Your task to perform on an android device: toggle notifications settings in the gmail app Image 0: 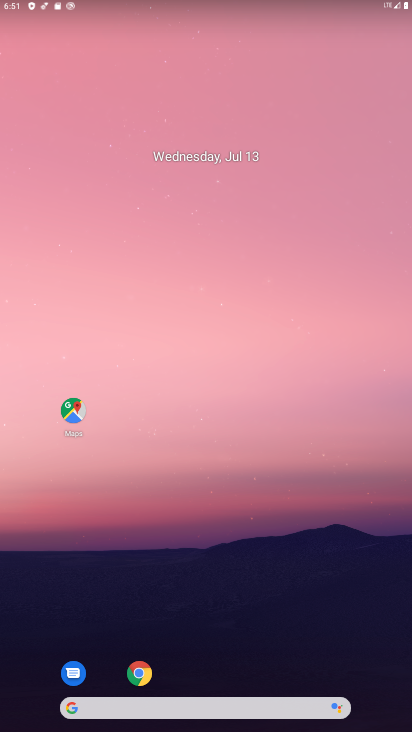
Step 0: drag from (260, 640) to (315, 90)
Your task to perform on an android device: toggle notifications settings in the gmail app Image 1: 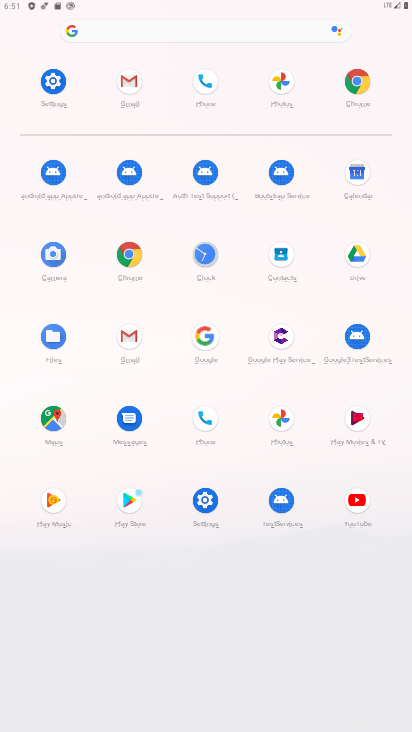
Step 1: click (134, 82)
Your task to perform on an android device: toggle notifications settings in the gmail app Image 2: 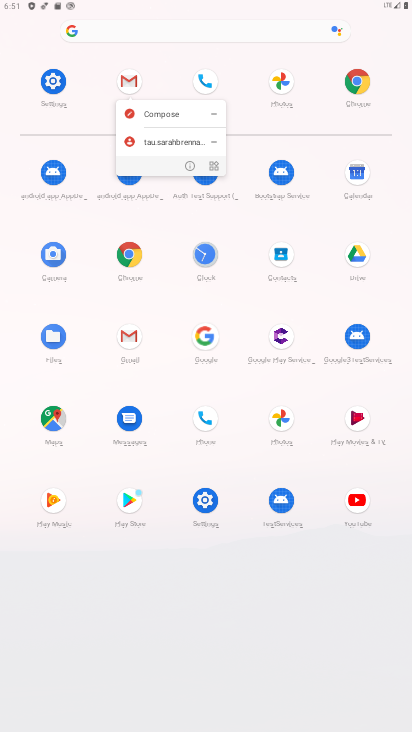
Step 2: click (132, 74)
Your task to perform on an android device: toggle notifications settings in the gmail app Image 3: 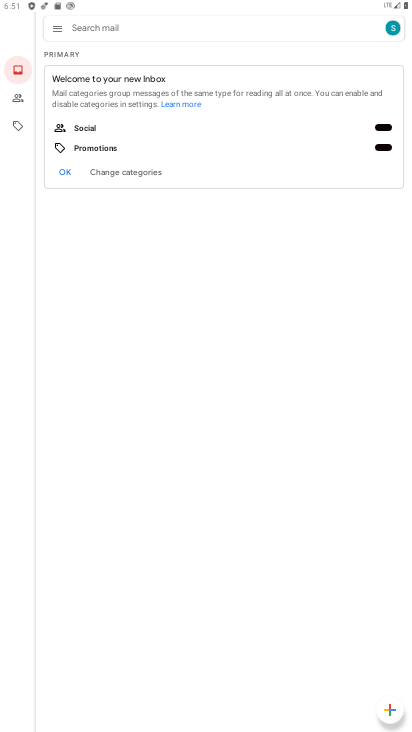
Step 3: click (65, 31)
Your task to perform on an android device: toggle notifications settings in the gmail app Image 4: 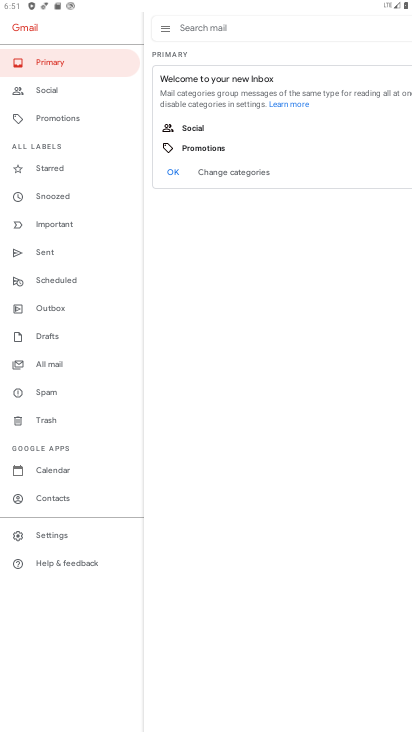
Step 4: click (71, 530)
Your task to perform on an android device: toggle notifications settings in the gmail app Image 5: 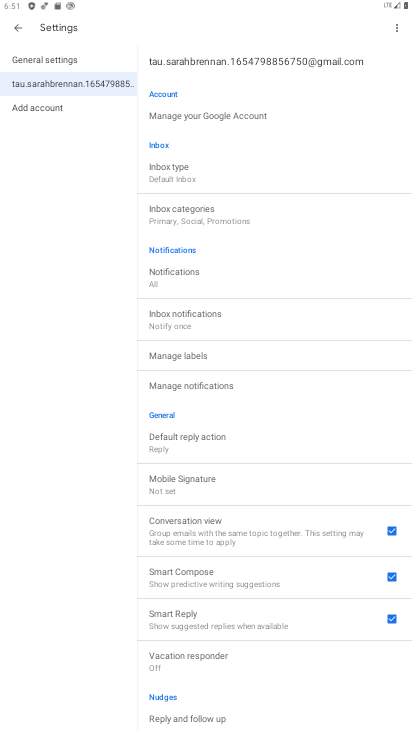
Step 5: click (199, 274)
Your task to perform on an android device: toggle notifications settings in the gmail app Image 6: 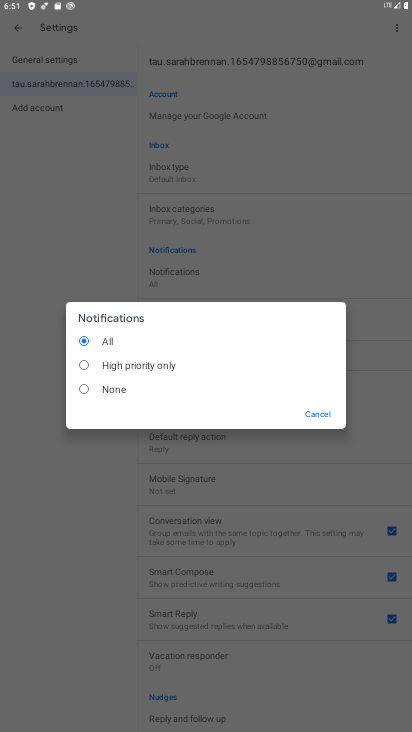
Step 6: click (131, 374)
Your task to perform on an android device: toggle notifications settings in the gmail app Image 7: 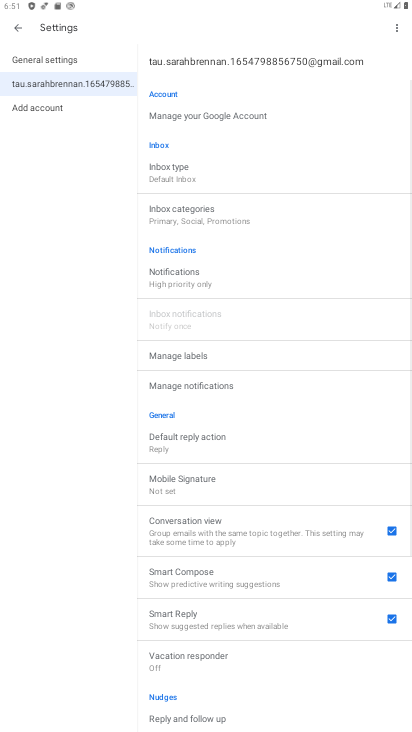
Step 7: task complete